Your task to perform on an android device: Open the Play Movies app and select the watchlist tab. Image 0: 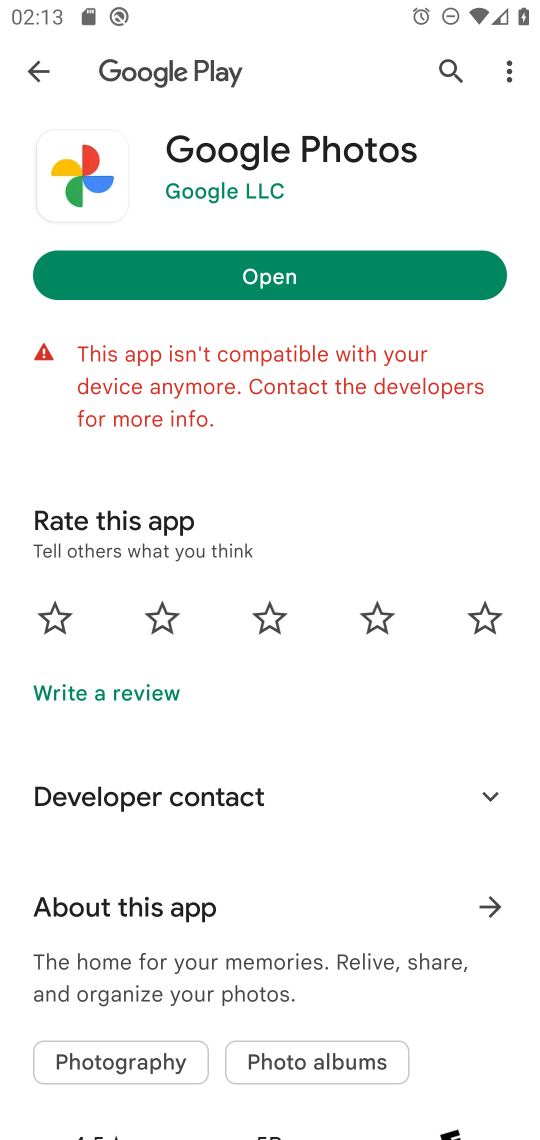
Step 0: press home button
Your task to perform on an android device: Open the Play Movies app and select the watchlist tab. Image 1: 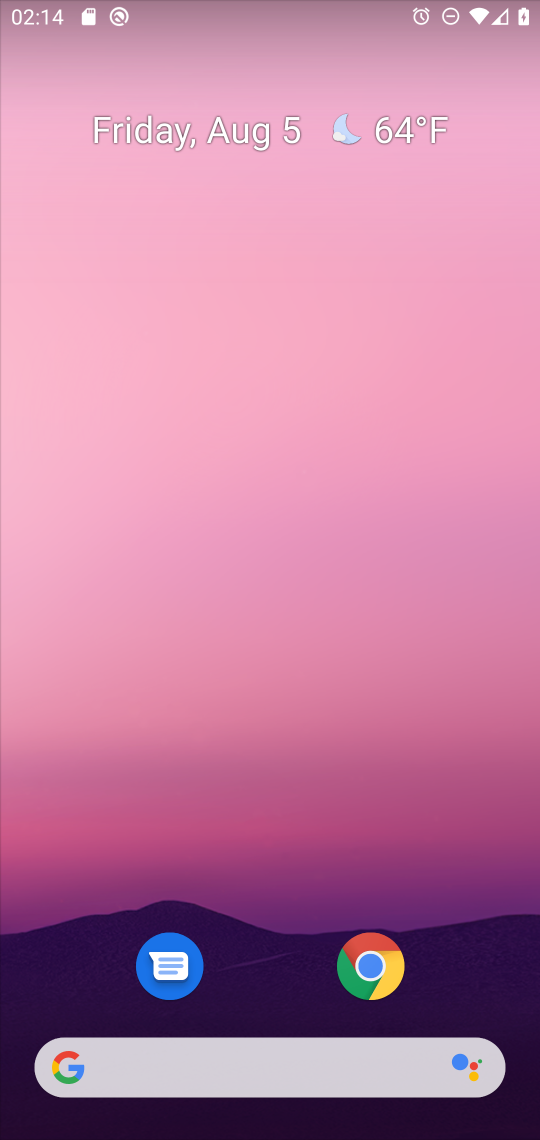
Step 1: drag from (268, 945) to (285, 21)
Your task to perform on an android device: Open the Play Movies app and select the watchlist tab. Image 2: 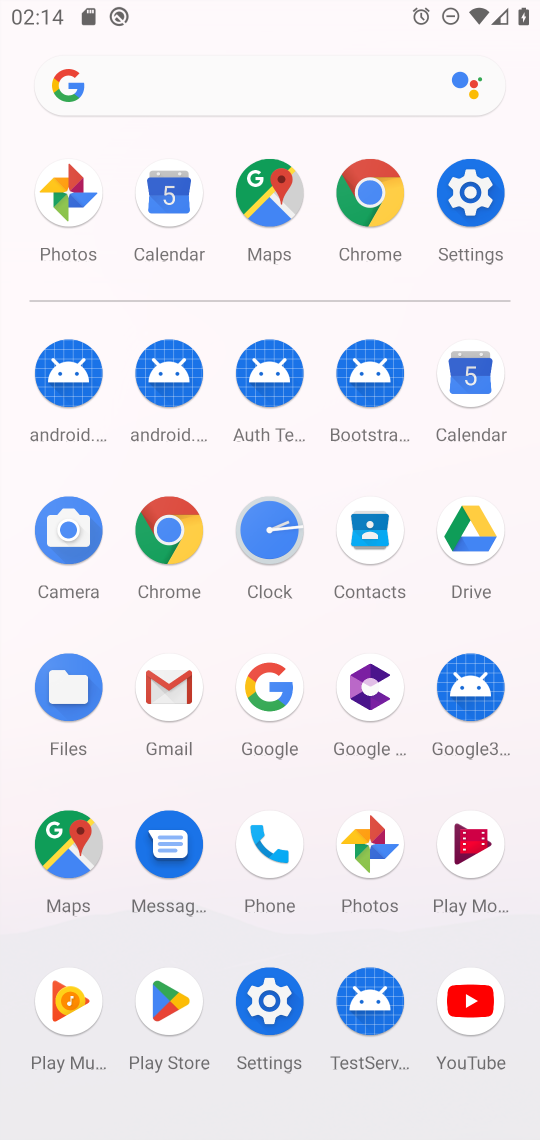
Step 2: click (466, 839)
Your task to perform on an android device: Open the Play Movies app and select the watchlist tab. Image 3: 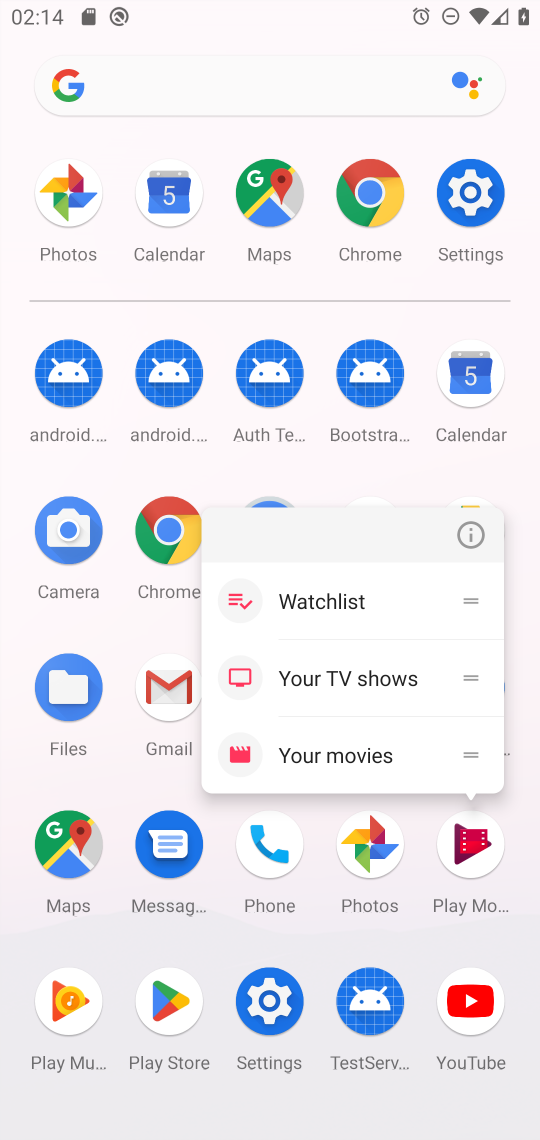
Step 3: click (466, 842)
Your task to perform on an android device: Open the Play Movies app and select the watchlist tab. Image 4: 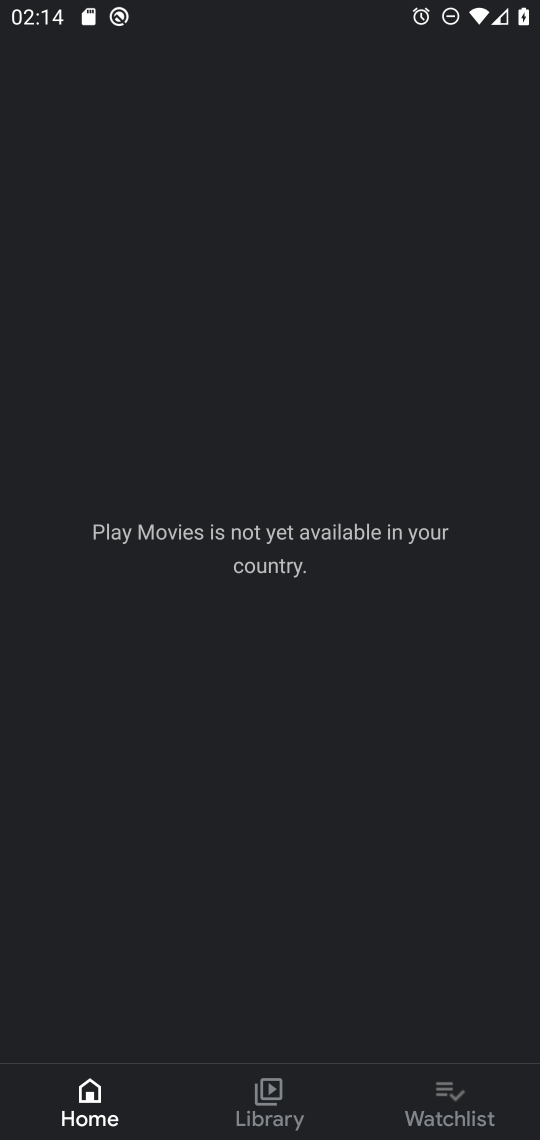
Step 4: task complete